Your task to perform on an android device: clear history in the chrome app Image 0: 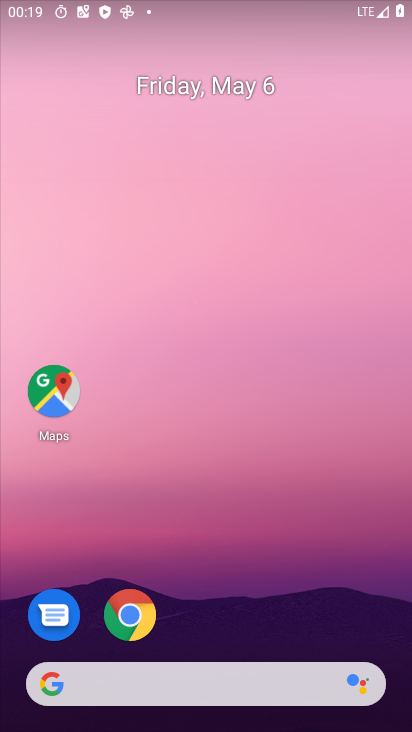
Step 0: drag from (252, 588) to (291, 167)
Your task to perform on an android device: clear history in the chrome app Image 1: 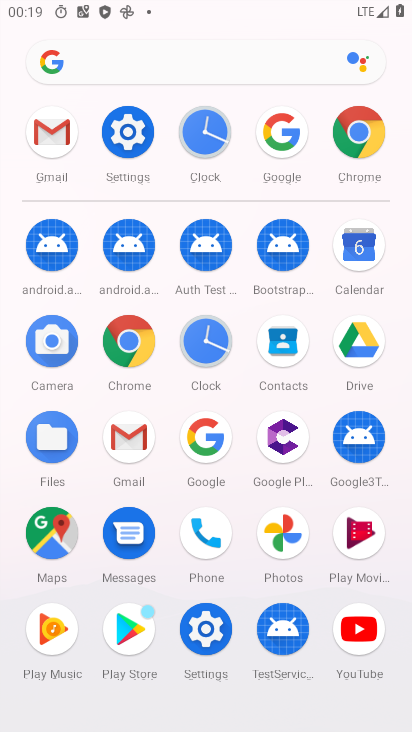
Step 1: click (356, 124)
Your task to perform on an android device: clear history in the chrome app Image 2: 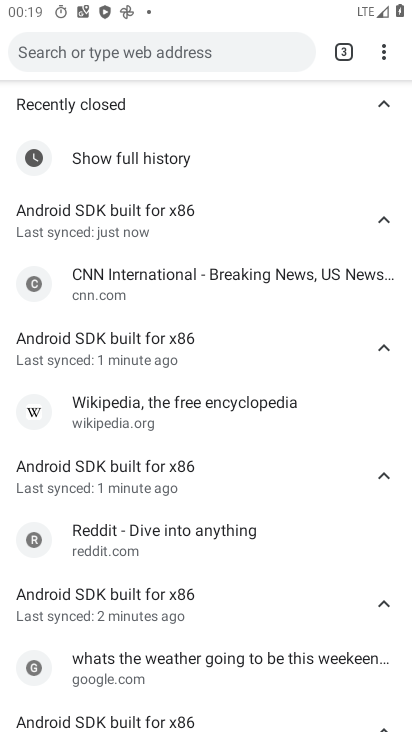
Step 2: press back button
Your task to perform on an android device: clear history in the chrome app Image 3: 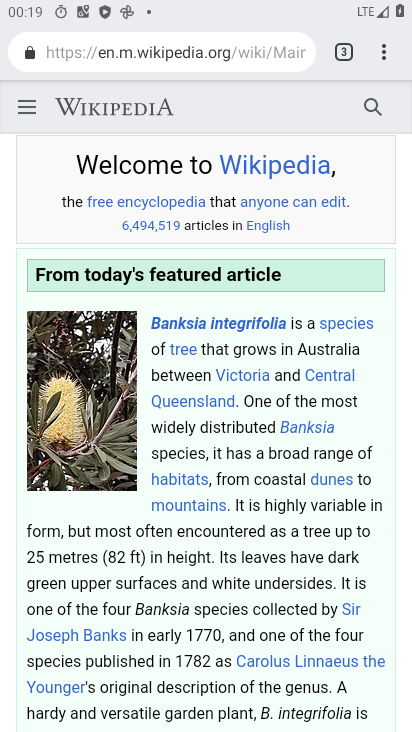
Step 3: click (384, 49)
Your task to perform on an android device: clear history in the chrome app Image 4: 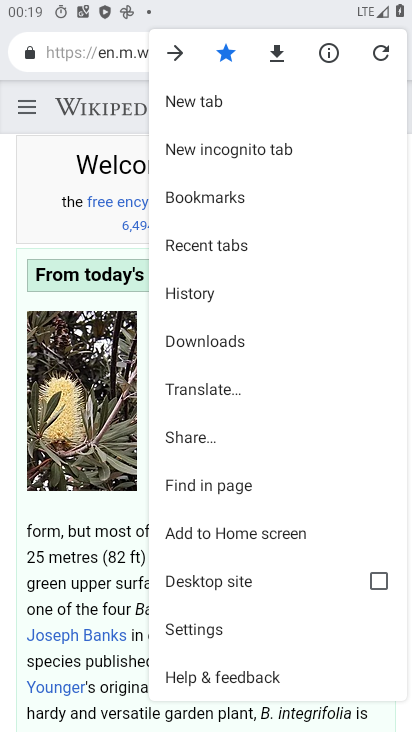
Step 4: click (240, 290)
Your task to perform on an android device: clear history in the chrome app Image 5: 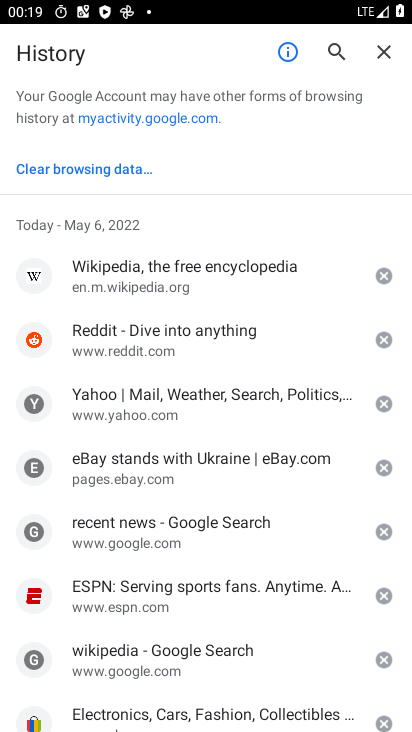
Step 5: click (160, 163)
Your task to perform on an android device: clear history in the chrome app Image 6: 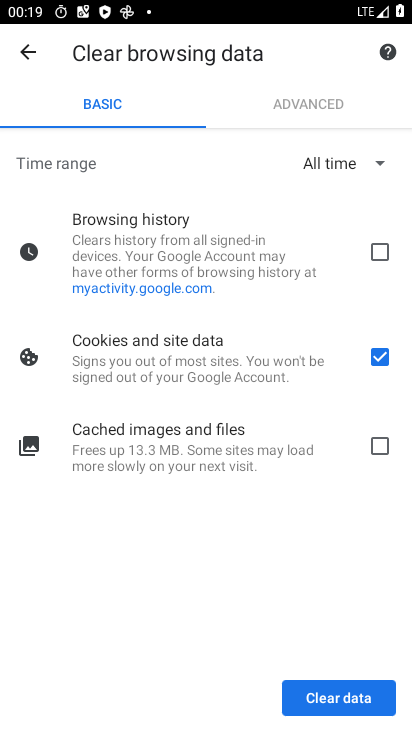
Step 6: click (379, 347)
Your task to perform on an android device: clear history in the chrome app Image 7: 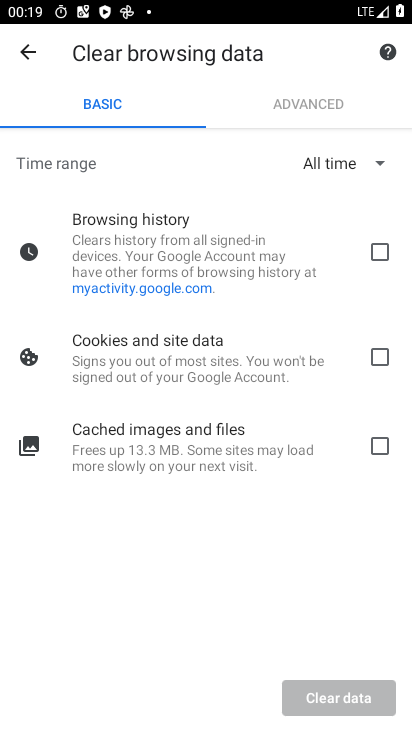
Step 7: click (381, 259)
Your task to perform on an android device: clear history in the chrome app Image 8: 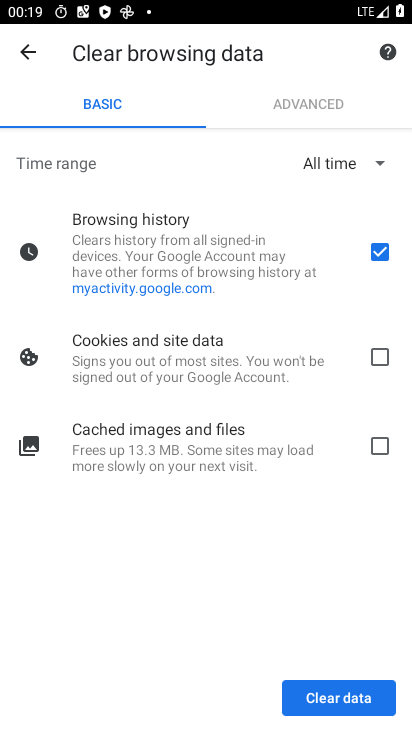
Step 8: click (341, 682)
Your task to perform on an android device: clear history in the chrome app Image 9: 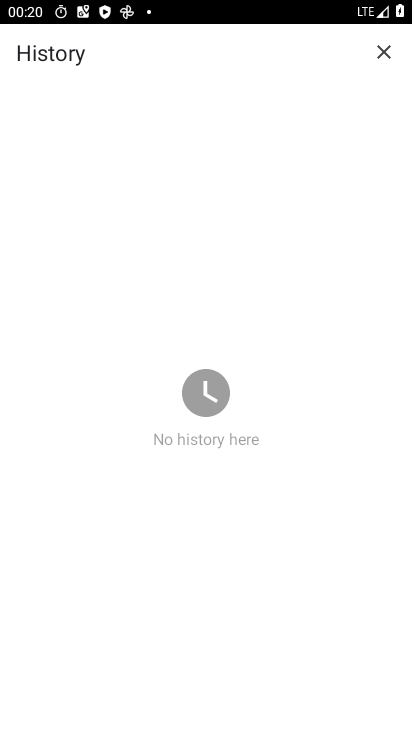
Step 9: task complete